Your task to perform on an android device: turn off sleep mode Image 0: 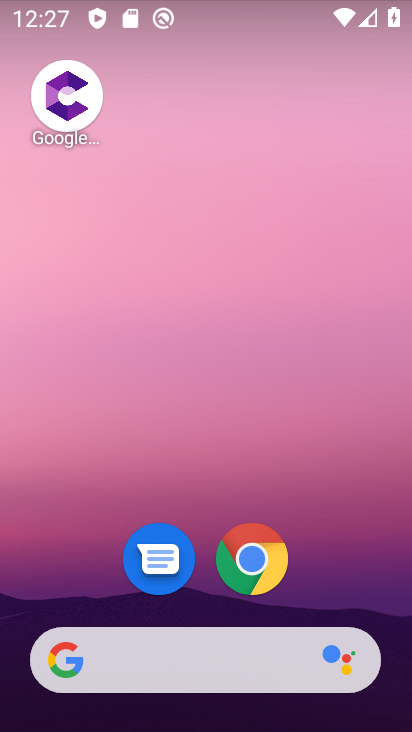
Step 0: drag from (210, 600) to (246, 146)
Your task to perform on an android device: turn off sleep mode Image 1: 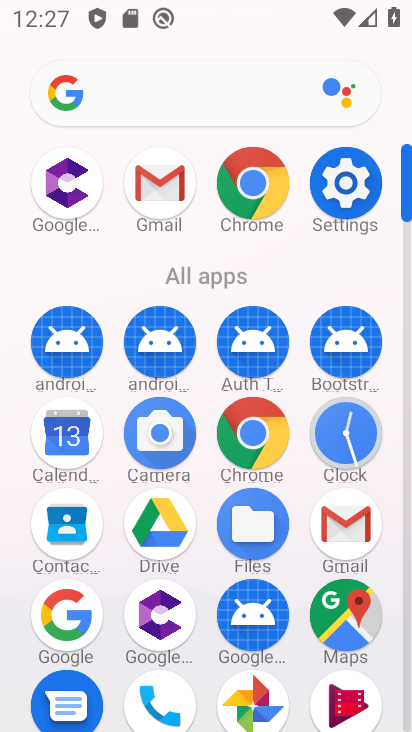
Step 1: click (345, 193)
Your task to perform on an android device: turn off sleep mode Image 2: 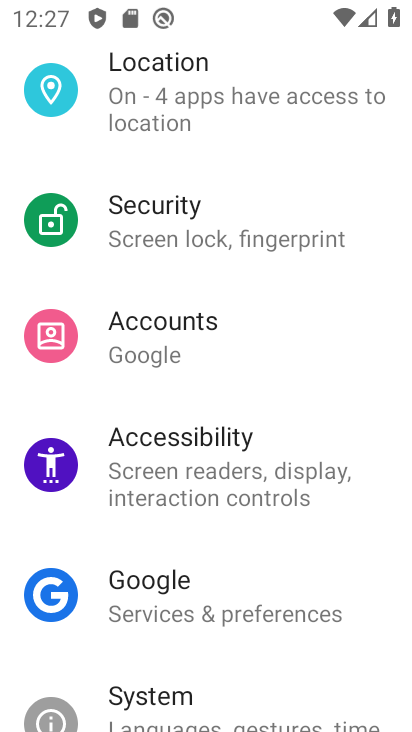
Step 2: drag from (201, 165) to (230, 606)
Your task to perform on an android device: turn off sleep mode Image 3: 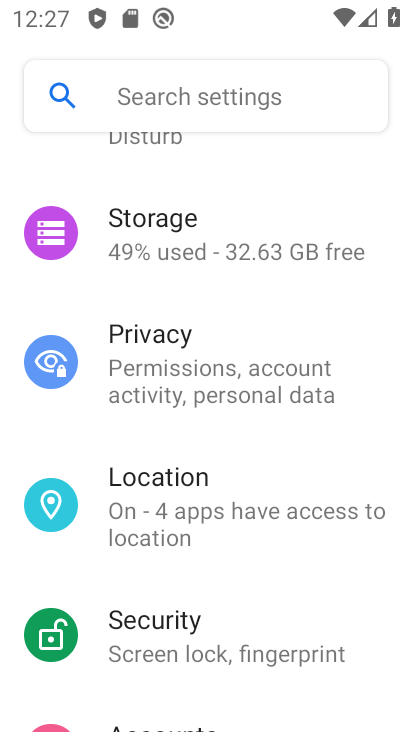
Step 3: drag from (149, 186) to (179, 535)
Your task to perform on an android device: turn off sleep mode Image 4: 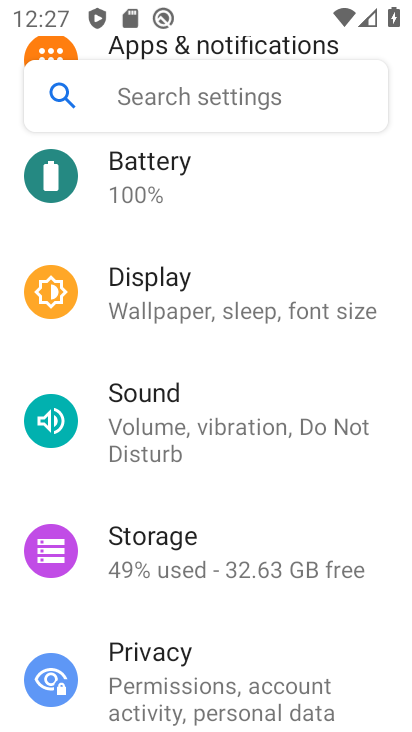
Step 4: click (177, 296)
Your task to perform on an android device: turn off sleep mode Image 5: 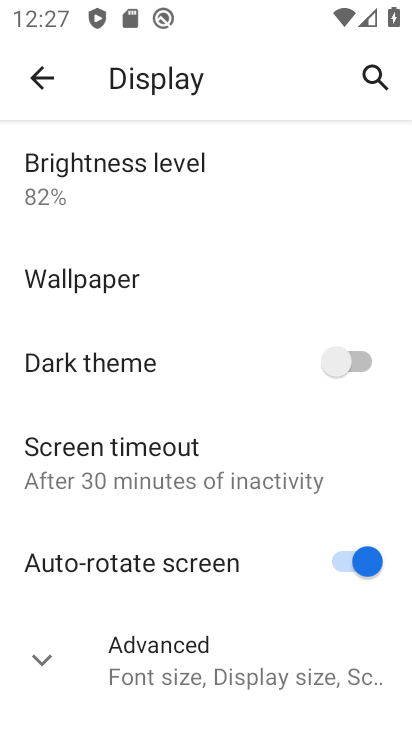
Step 5: drag from (209, 556) to (201, 242)
Your task to perform on an android device: turn off sleep mode Image 6: 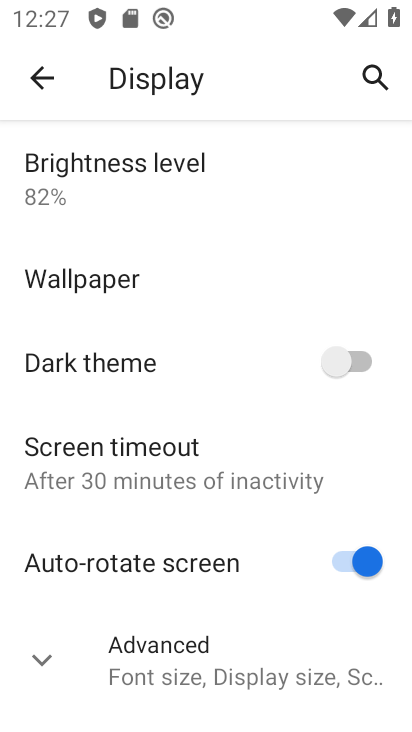
Step 6: click (160, 653)
Your task to perform on an android device: turn off sleep mode Image 7: 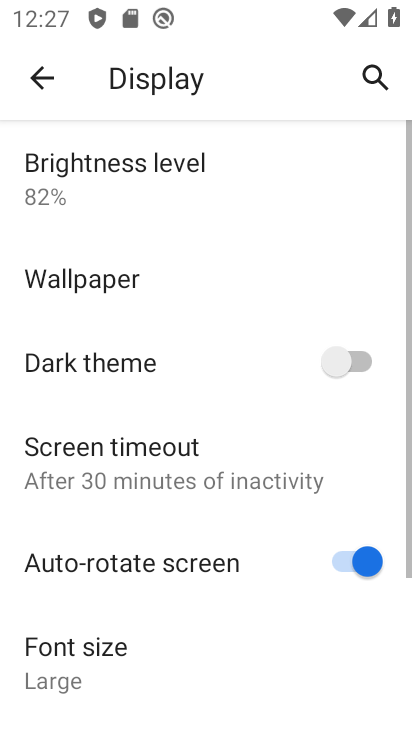
Step 7: drag from (188, 549) to (228, 167)
Your task to perform on an android device: turn off sleep mode Image 8: 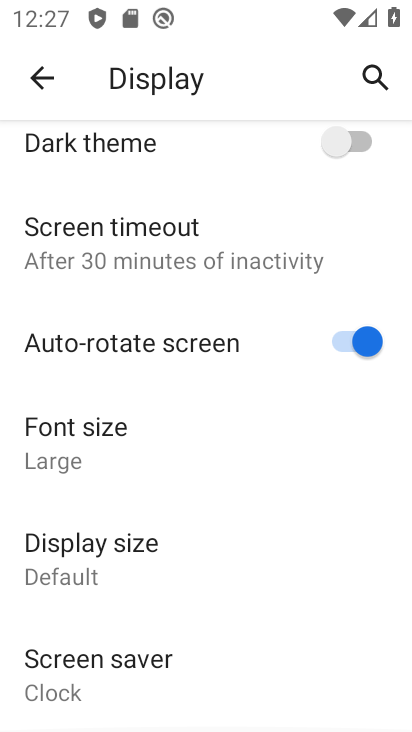
Step 8: drag from (145, 609) to (181, 606)
Your task to perform on an android device: turn off sleep mode Image 9: 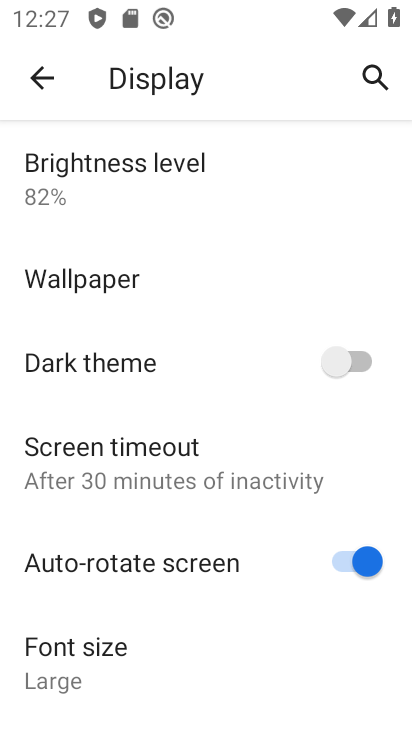
Step 9: click (143, 483)
Your task to perform on an android device: turn off sleep mode Image 10: 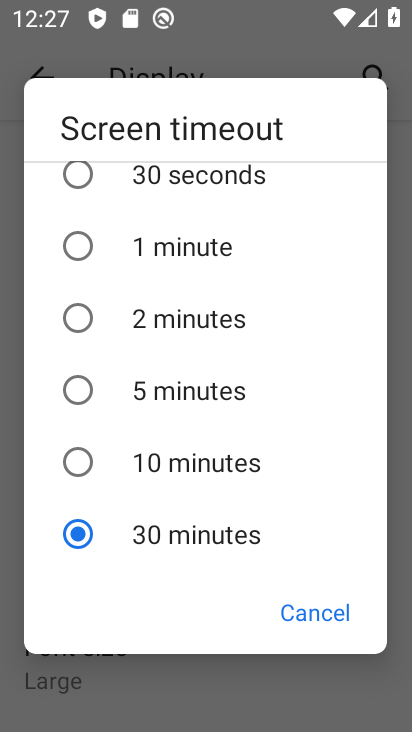
Step 10: task complete